Your task to perform on an android device: Clear all items from cart on newegg. Image 0: 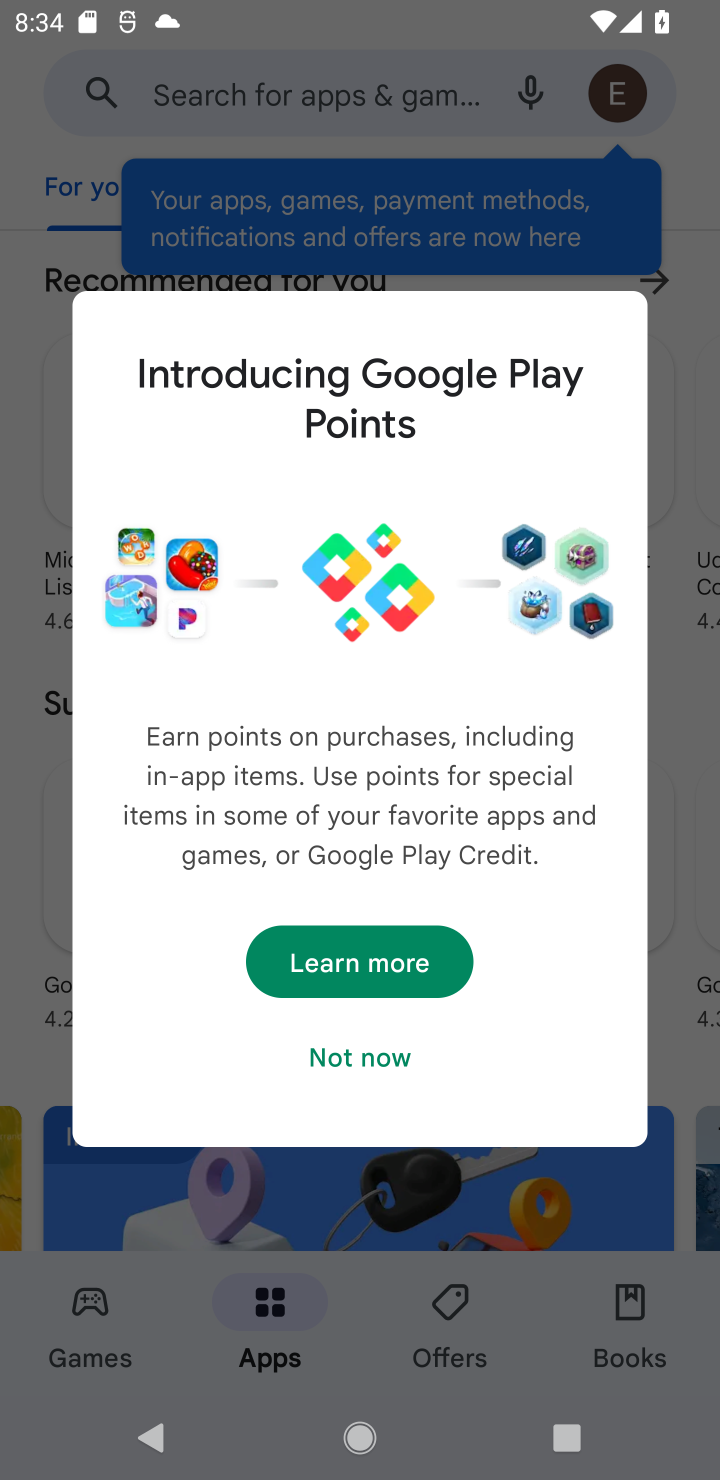
Step 0: task complete